Your task to perform on an android device: toggle improve location accuracy Image 0: 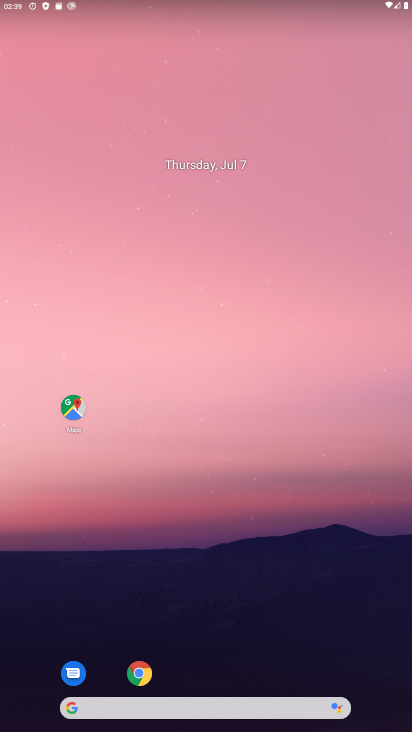
Step 0: drag from (204, 658) to (190, 269)
Your task to perform on an android device: toggle improve location accuracy Image 1: 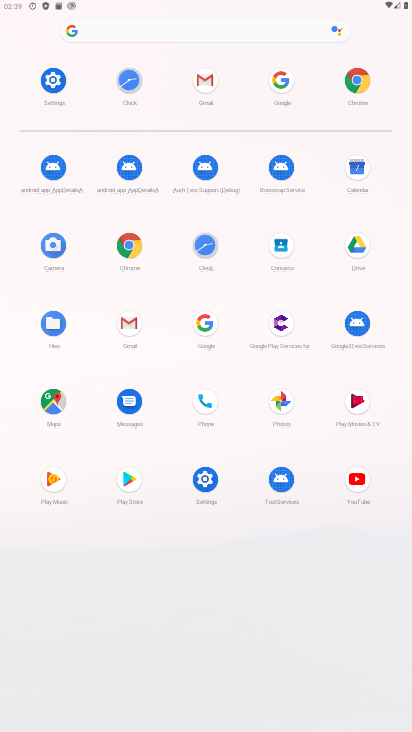
Step 1: click (65, 79)
Your task to perform on an android device: toggle improve location accuracy Image 2: 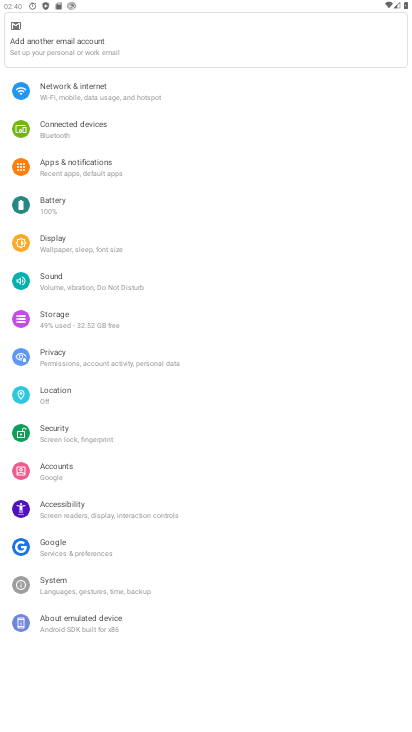
Step 2: click (75, 398)
Your task to perform on an android device: toggle improve location accuracy Image 3: 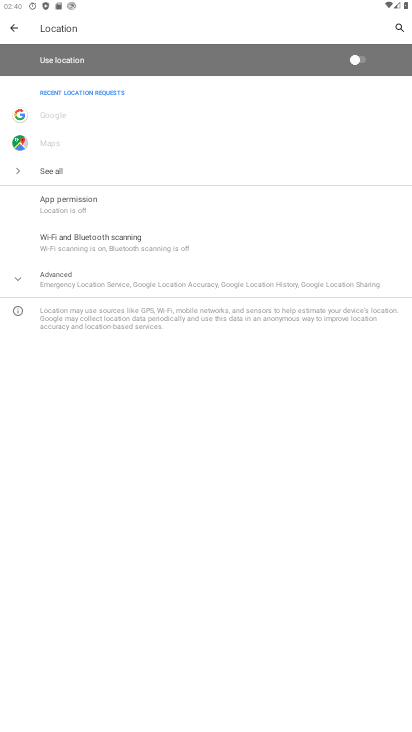
Step 3: click (98, 286)
Your task to perform on an android device: toggle improve location accuracy Image 4: 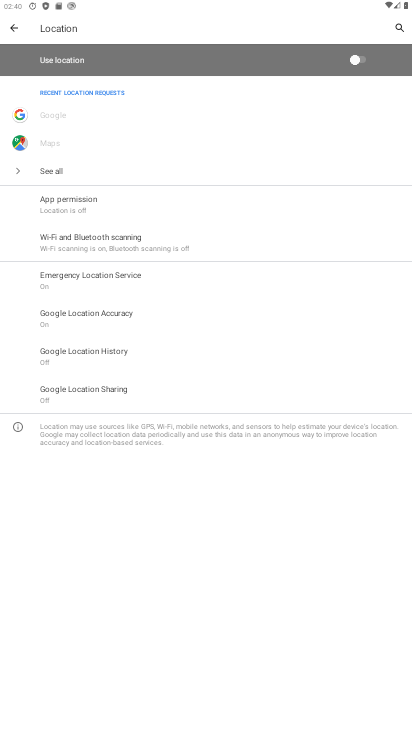
Step 4: click (112, 312)
Your task to perform on an android device: toggle improve location accuracy Image 5: 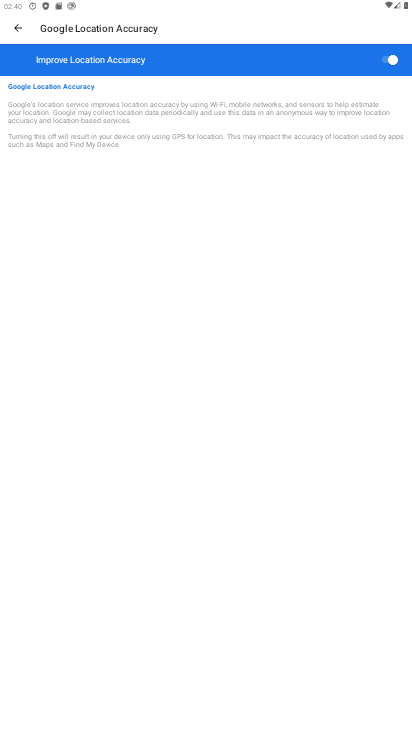
Step 5: click (384, 58)
Your task to perform on an android device: toggle improve location accuracy Image 6: 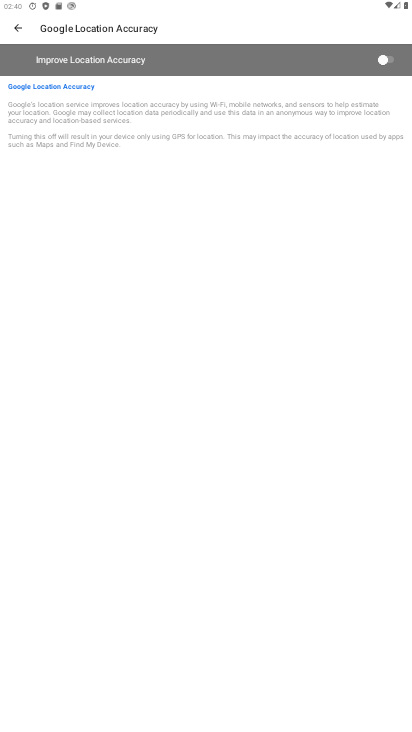
Step 6: task complete